Your task to perform on an android device: stop showing notifications on the lock screen Image 0: 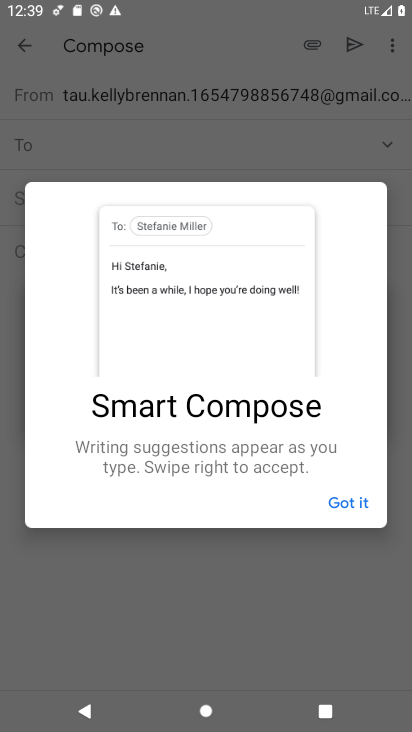
Step 0: click (348, 509)
Your task to perform on an android device: stop showing notifications on the lock screen Image 1: 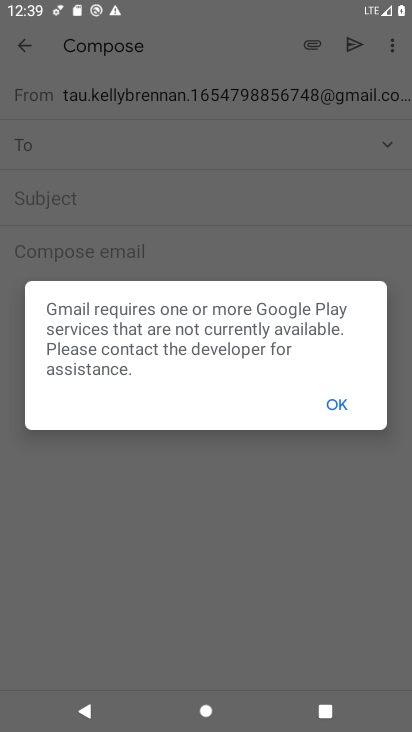
Step 1: drag from (196, 587) to (319, 303)
Your task to perform on an android device: stop showing notifications on the lock screen Image 2: 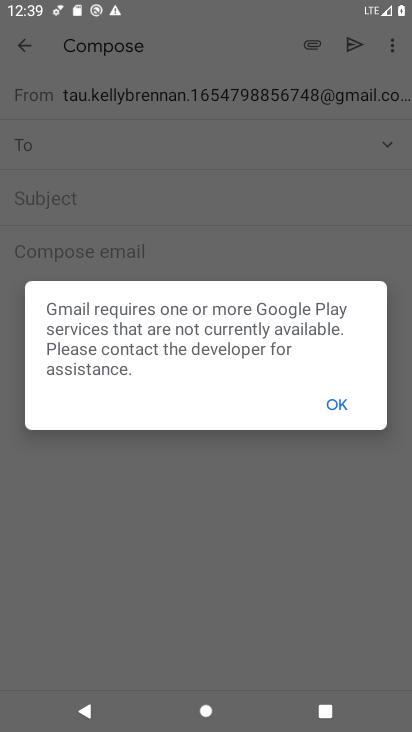
Step 2: click (319, 404)
Your task to perform on an android device: stop showing notifications on the lock screen Image 3: 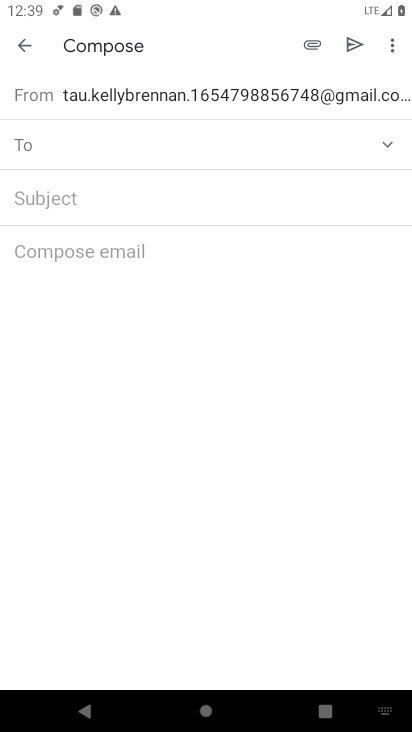
Step 3: click (114, 133)
Your task to perform on an android device: stop showing notifications on the lock screen Image 4: 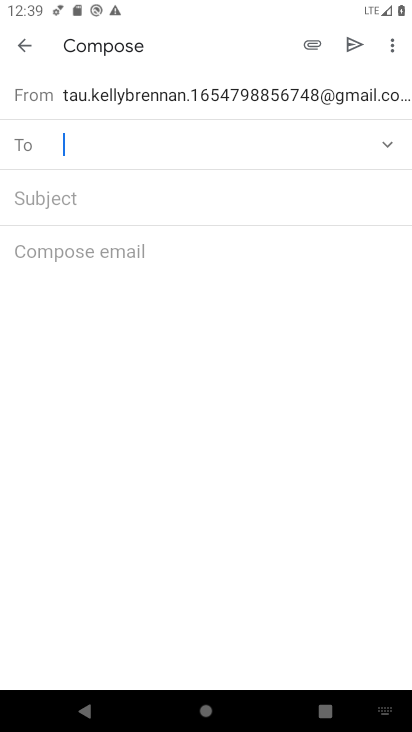
Step 4: drag from (210, 571) to (326, 304)
Your task to perform on an android device: stop showing notifications on the lock screen Image 5: 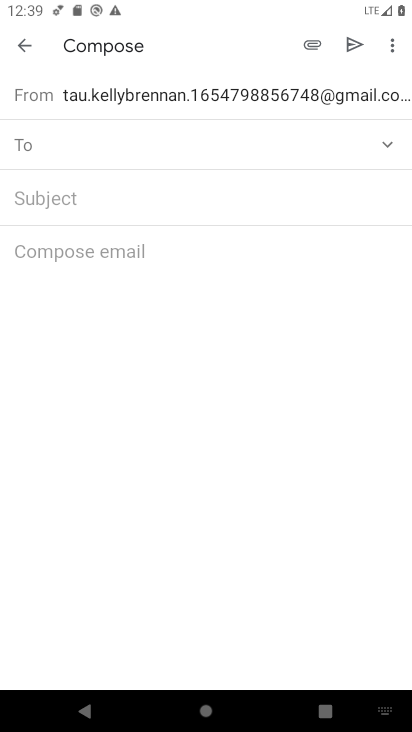
Step 5: press home button
Your task to perform on an android device: stop showing notifications on the lock screen Image 6: 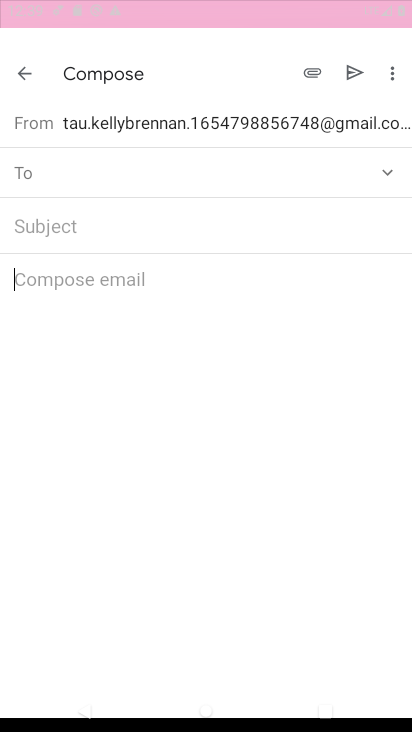
Step 6: drag from (231, 616) to (323, 5)
Your task to perform on an android device: stop showing notifications on the lock screen Image 7: 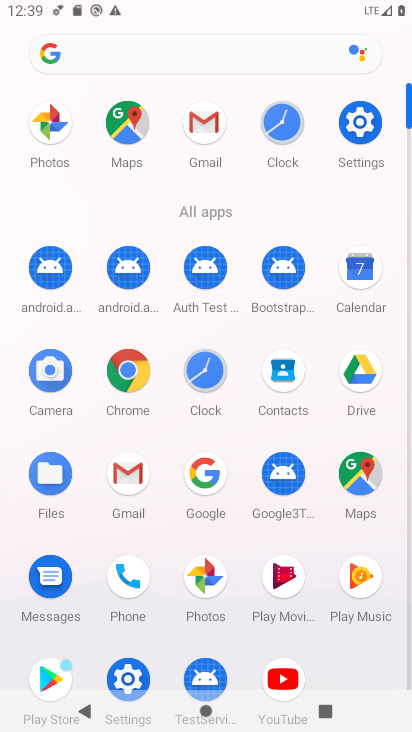
Step 7: click (366, 125)
Your task to perform on an android device: stop showing notifications on the lock screen Image 8: 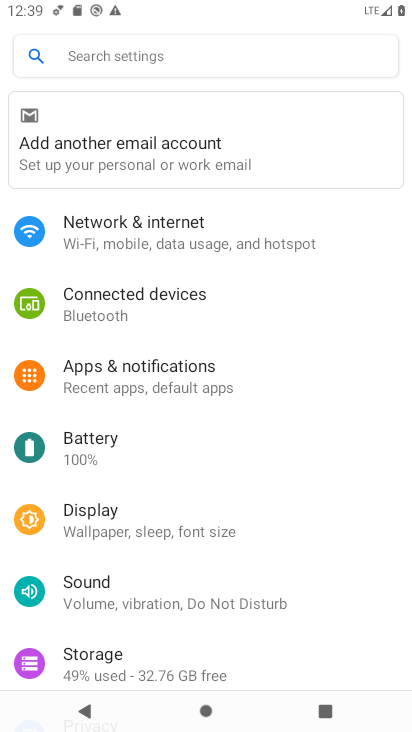
Step 8: click (176, 372)
Your task to perform on an android device: stop showing notifications on the lock screen Image 9: 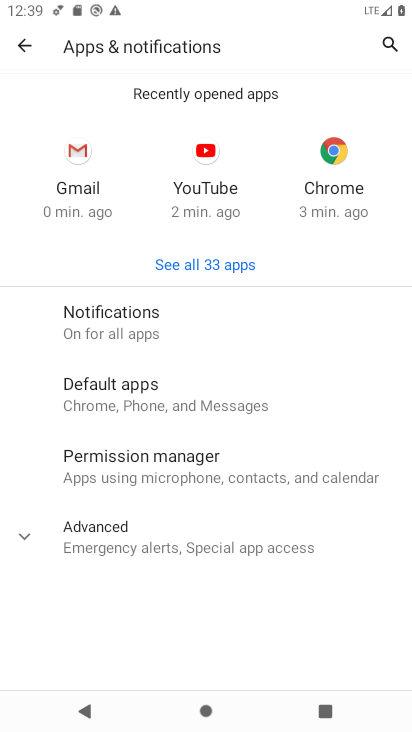
Step 9: click (172, 325)
Your task to perform on an android device: stop showing notifications on the lock screen Image 10: 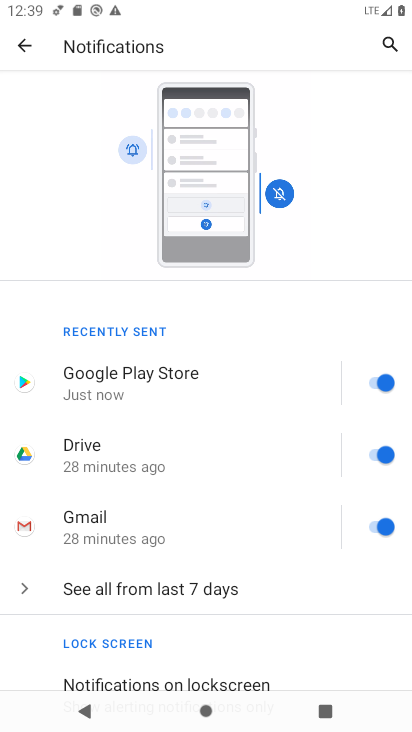
Step 10: drag from (226, 630) to (347, 198)
Your task to perform on an android device: stop showing notifications on the lock screen Image 11: 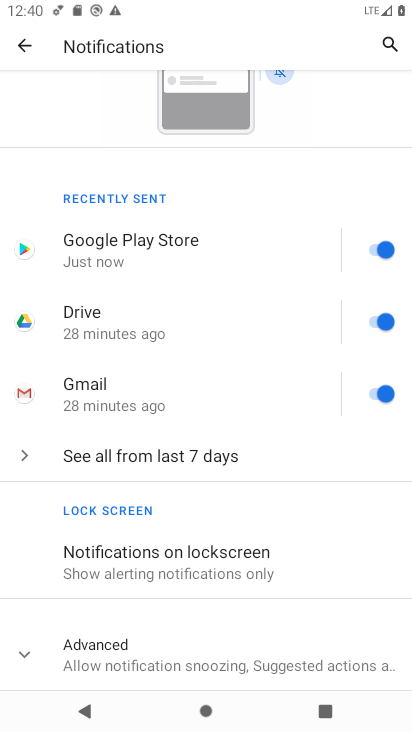
Step 11: click (210, 569)
Your task to perform on an android device: stop showing notifications on the lock screen Image 12: 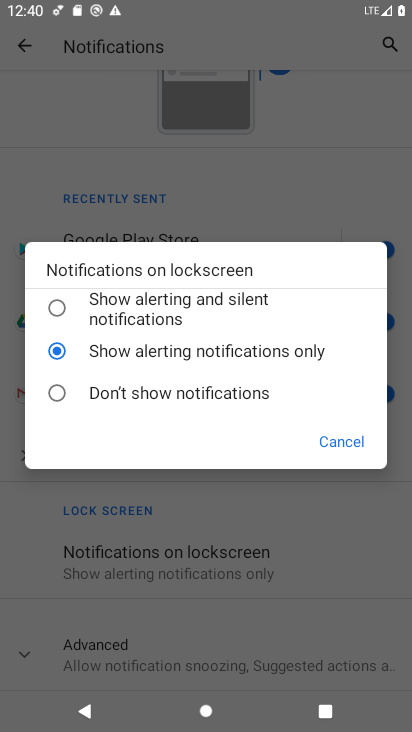
Step 12: task complete